Your task to perform on an android device: What is the news today? Image 0: 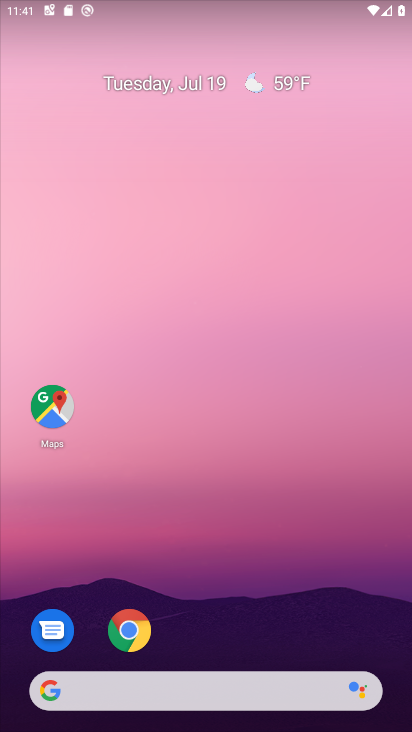
Step 0: drag from (2, 284) to (350, 290)
Your task to perform on an android device: What is the news today? Image 1: 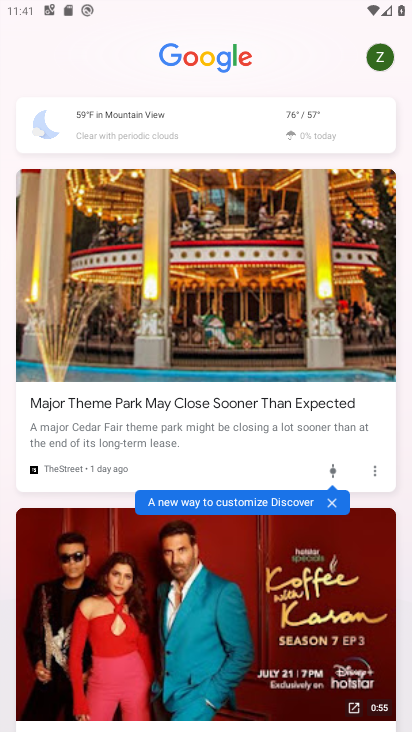
Step 1: task complete